Your task to perform on an android device: move a message to another label in the gmail app Image 0: 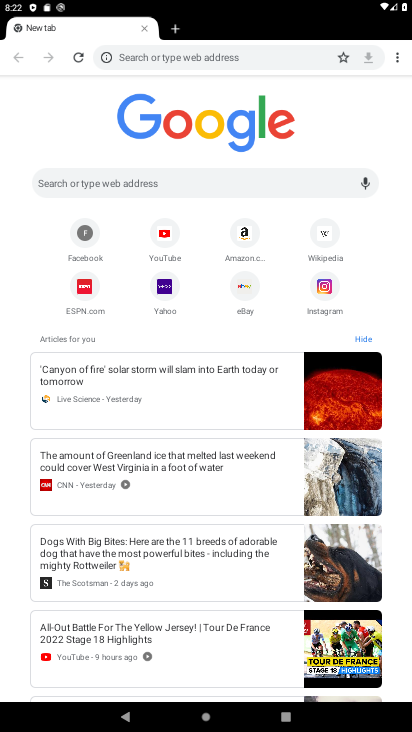
Step 0: press home button
Your task to perform on an android device: move a message to another label in the gmail app Image 1: 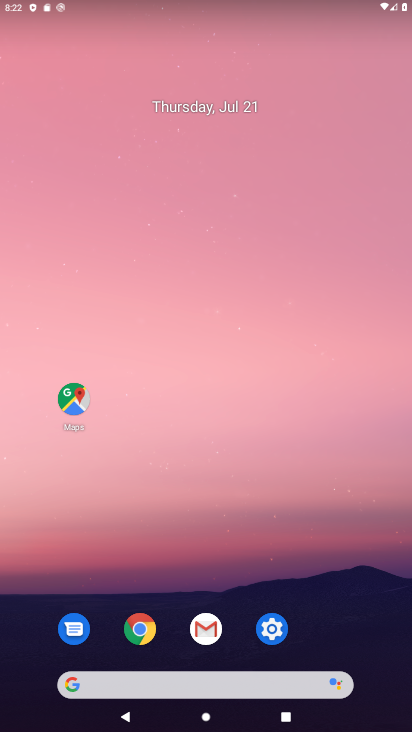
Step 1: click (220, 619)
Your task to perform on an android device: move a message to another label in the gmail app Image 2: 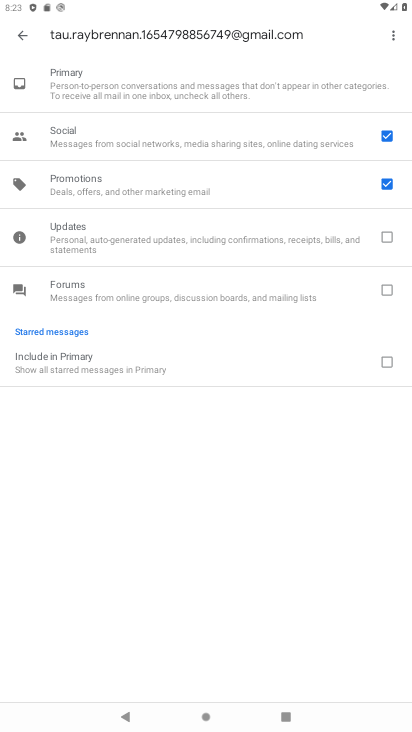
Step 2: click (29, 44)
Your task to perform on an android device: move a message to another label in the gmail app Image 3: 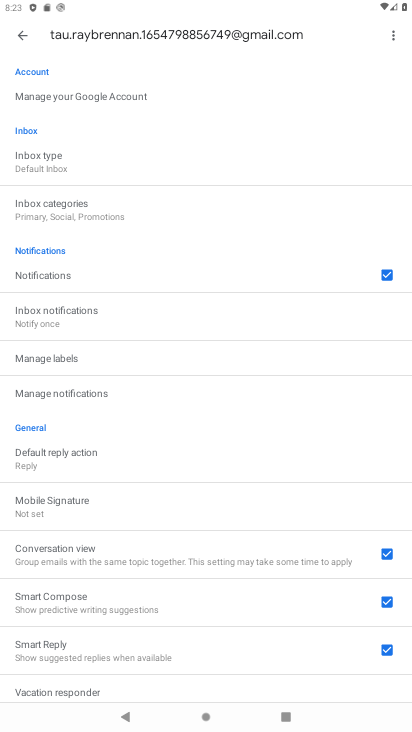
Step 3: click (62, 363)
Your task to perform on an android device: move a message to another label in the gmail app Image 4: 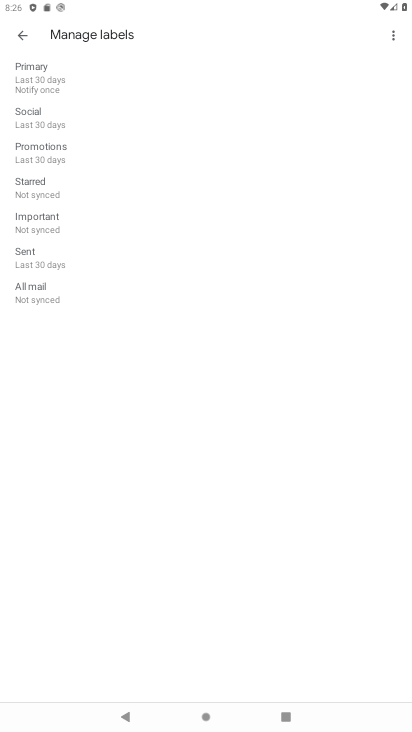
Step 4: task complete